Your task to perform on an android device: Add "corsair k70" to the cart on amazon.com, then select checkout. Image 0: 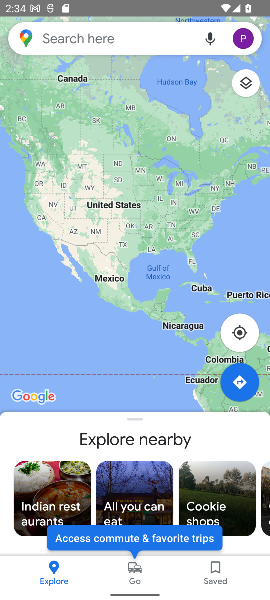
Step 0: press home button
Your task to perform on an android device: Add "corsair k70" to the cart on amazon.com, then select checkout. Image 1: 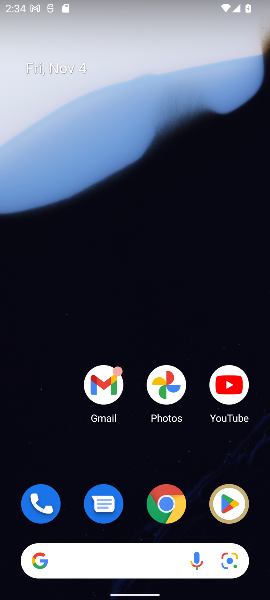
Step 1: click (152, 504)
Your task to perform on an android device: Add "corsair k70" to the cart on amazon.com, then select checkout. Image 2: 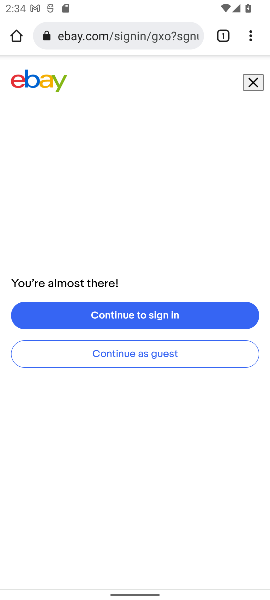
Step 2: click (130, 31)
Your task to perform on an android device: Add "corsair k70" to the cart on amazon.com, then select checkout. Image 3: 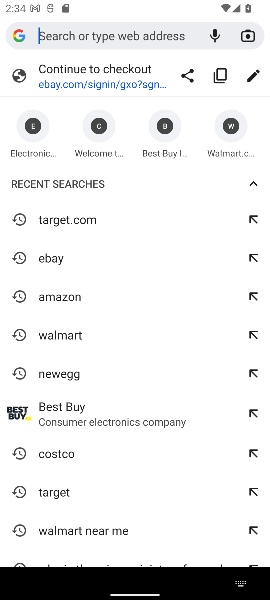
Step 3: click (52, 300)
Your task to perform on an android device: Add "corsair k70" to the cart on amazon.com, then select checkout. Image 4: 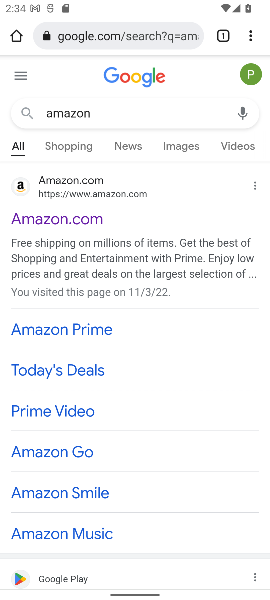
Step 4: click (45, 225)
Your task to perform on an android device: Add "corsair k70" to the cart on amazon.com, then select checkout. Image 5: 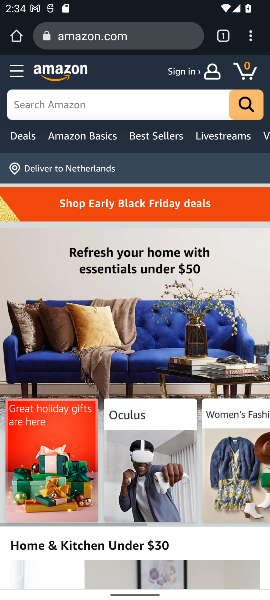
Step 5: click (52, 107)
Your task to perform on an android device: Add "corsair k70" to the cart on amazon.com, then select checkout. Image 6: 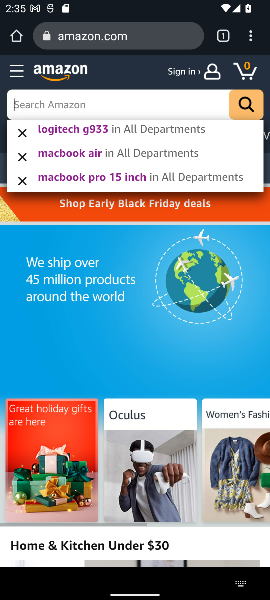
Step 6: type "corsair k70"
Your task to perform on an android device: Add "corsair k70" to the cart on amazon.com, then select checkout. Image 7: 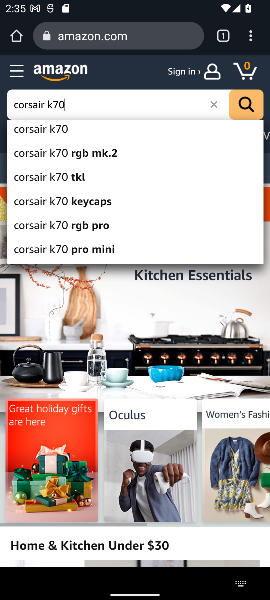
Step 7: click (17, 137)
Your task to perform on an android device: Add "corsair k70" to the cart on amazon.com, then select checkout. Image 8: 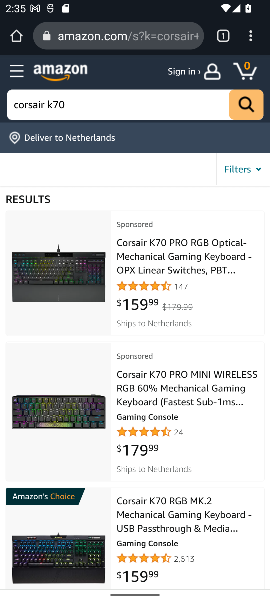
Step 8: click (119, 283)
Your task to perform on an android device: Add "corsair k70" to the cart on amazon.com, then select checkout. Image 9: 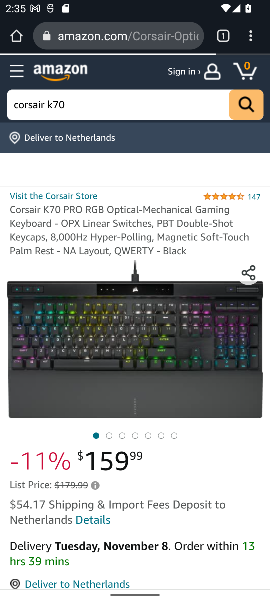
Step 9: drag from (93, 436) to (112, 168)
Your task to perform on an android device: Add "corsair k70" to the cart on amazon.com, then select checkout. Image 10: 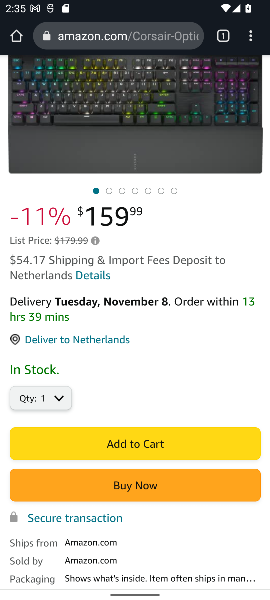
Step 10: click (106, 445)
Your task to perform on an android device: Add "corsair k70" to the cart on amazon.com, then select checkout. Image 11: 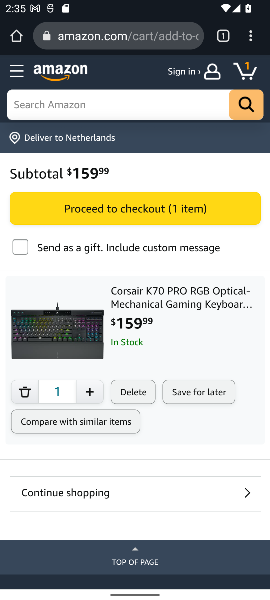
Step 11: click (135, 208)
Your task to perform on an android device: Add "corsair k70" to the cart on amazon.com, then select checkout. Image 12: 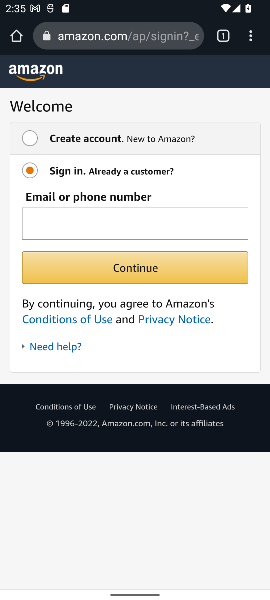
Step 12: task complete